Your task to perform on an android device: Open the web browser Image 0: 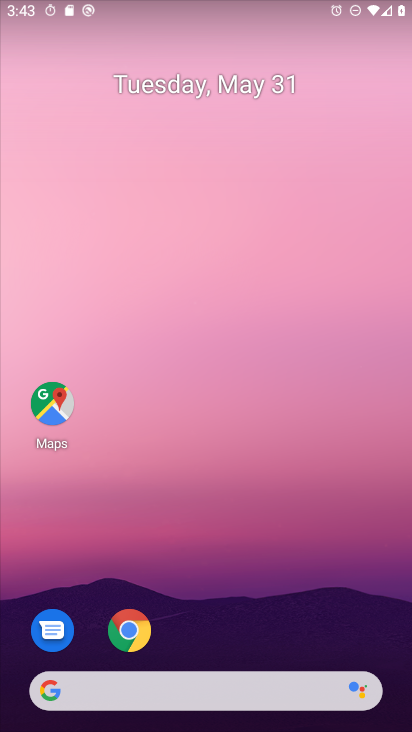
Step 0: drag from (194, 722) to (323, 25)
Your task to perform on an android device: Open the web browser Image 1: 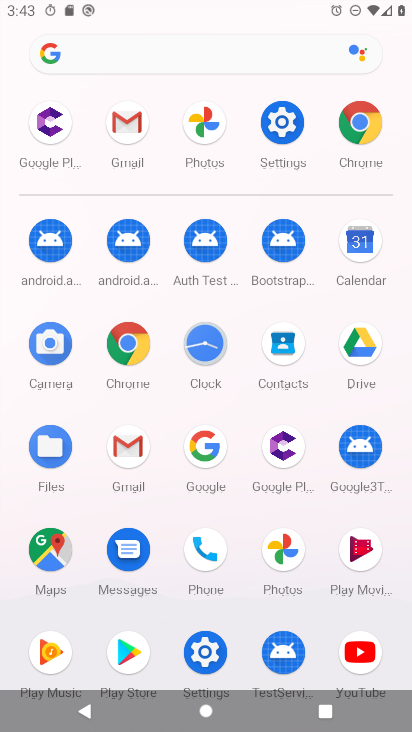
Step 1: click (126, 337)
Your task to perform on an android device: Open the web browser Image 2: 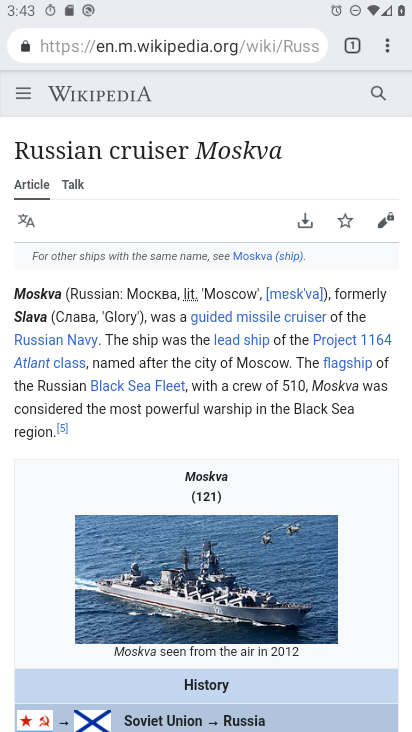
Step 2: task complete